Your task to perform on an android device: Search for pizza restaurants on Maps Image 0: 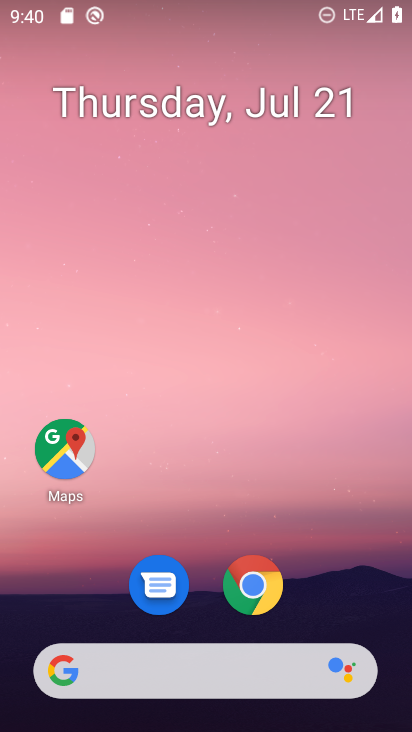
Step 0: click (64, 460)
Your task to perform on an android device: Search for pizza restaurants on Maps Image 1: 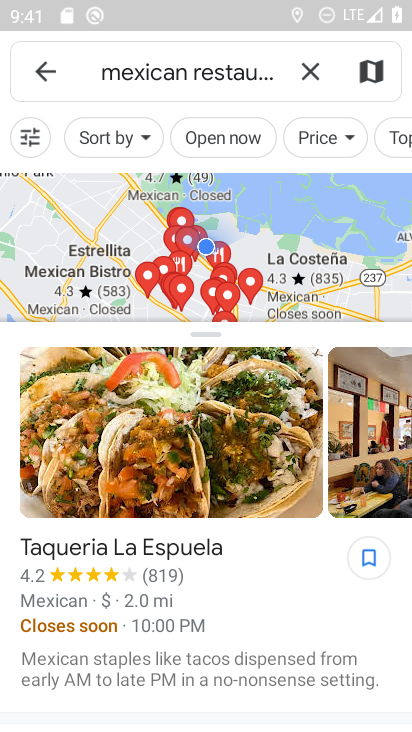
Step 1: click (310, 65)
Your task to perform on an android device: Search for pizza restaurants on Maps Image 2: 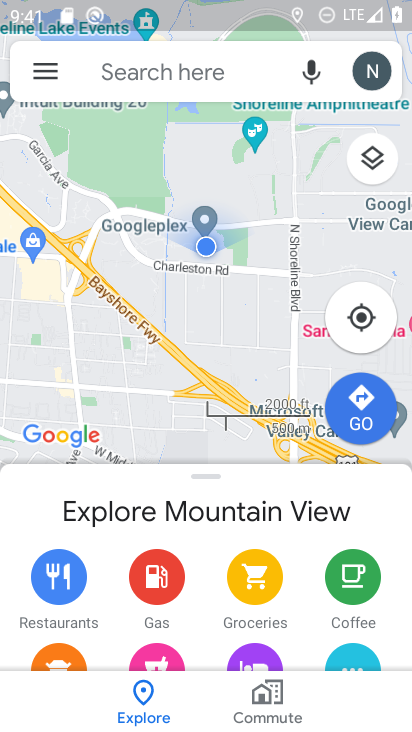
Step 2: click (226, 61)
Your task to perform on an android device: Search for pizza restaurants on Maps Image 3: 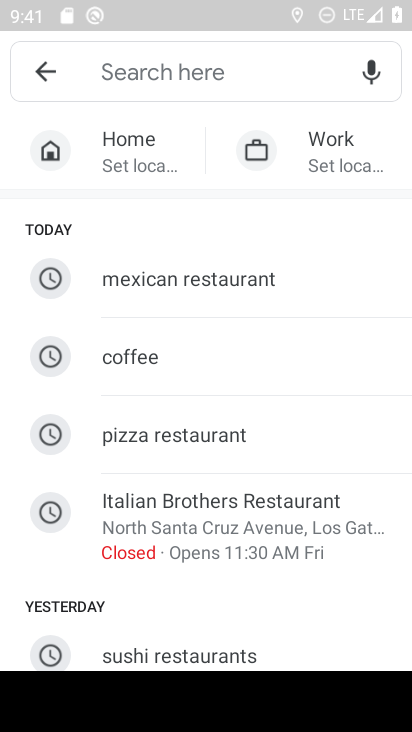
Step 3: click (188, 432)
Your task to perform on an android device: Search for pizza restaurants on Maps Image 4: 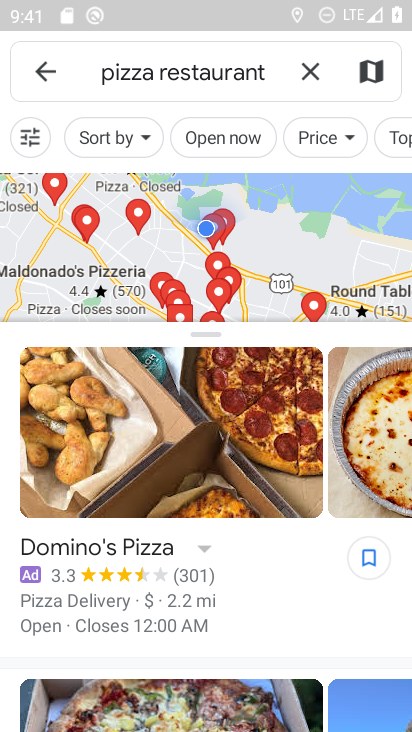
Step 4: task complete